Your task to perform on an android device: delete browsing data in the chrome app Image 0: 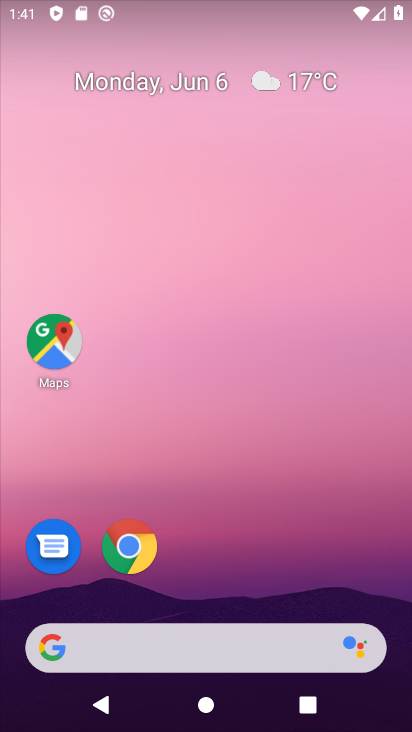
Step 0: click (126, 543)
Your task to perform on an android device: delete browsing data in the chrome app Image 1: 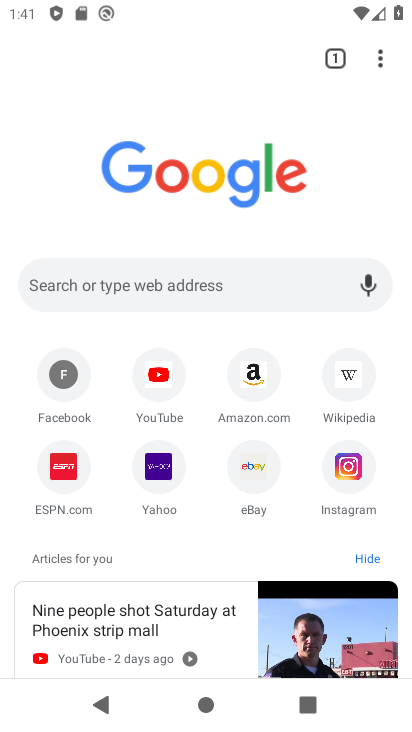
Step 1: click (378, 61)
Your task to perform on an android device: delete browsing data in the chrome app Image 2: 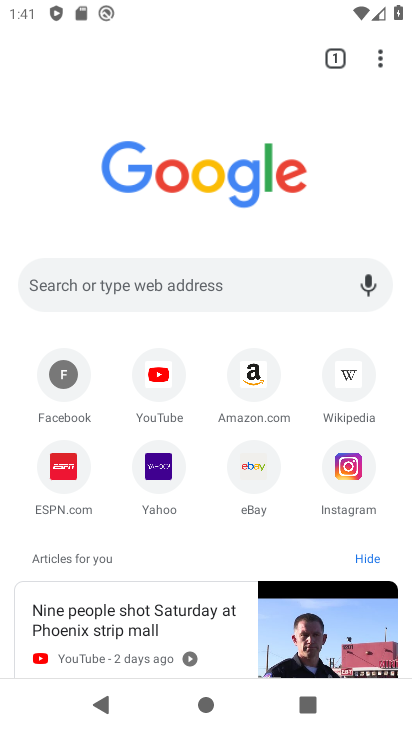
Step 2: task complete